Your task to perform on an android device: Open Amazon Image 0: 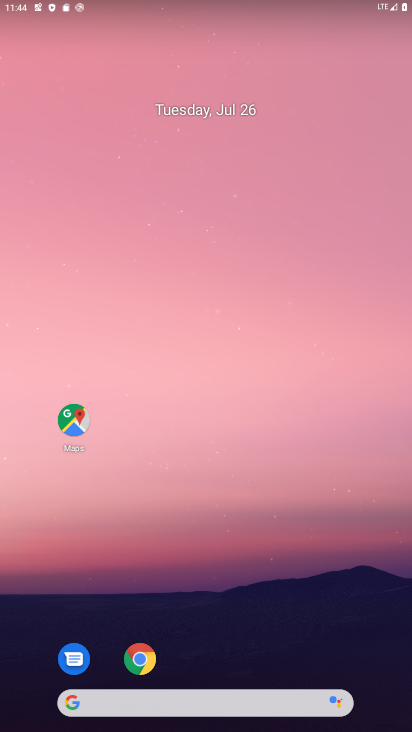
Step 0: click (135, 650)
Your task to perform on an android device: Open Amazon Image 1: 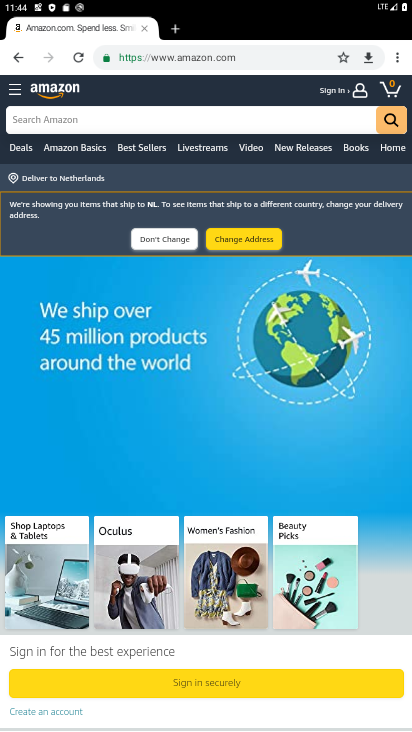
Step 1: task complete